Your task to perform on an android device: change notifications settings Image 0: 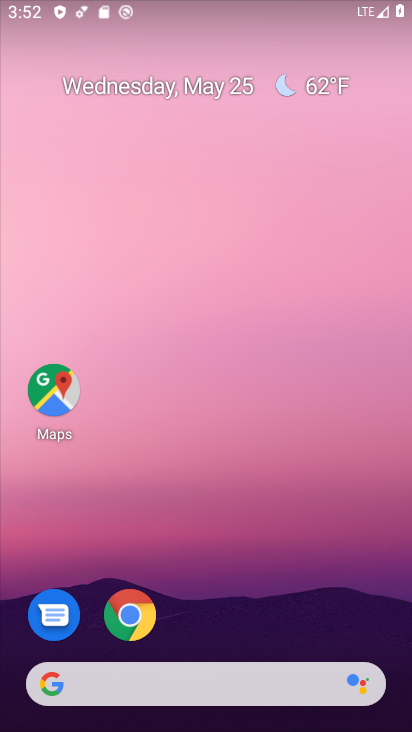
Step 0: drag from (346, 459) to (226, 2)
Your task to perform on an android device: change notifications settings Image 1: 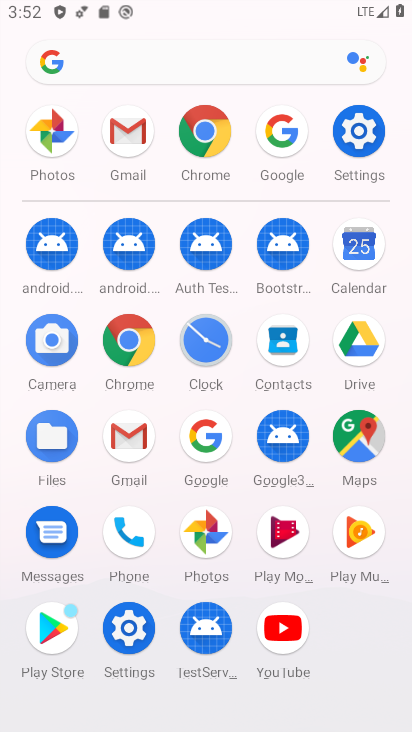
Step 1: click (357, 143)
Your task to perform on an android device: change notifications settings Image 2: 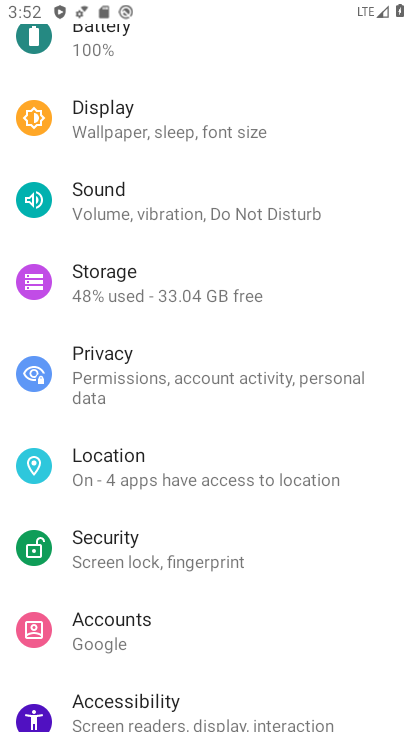
Step 2: drag from (226, 552) to (230, 202)
Your task to perform on an android device: change notifications settings Image 3: 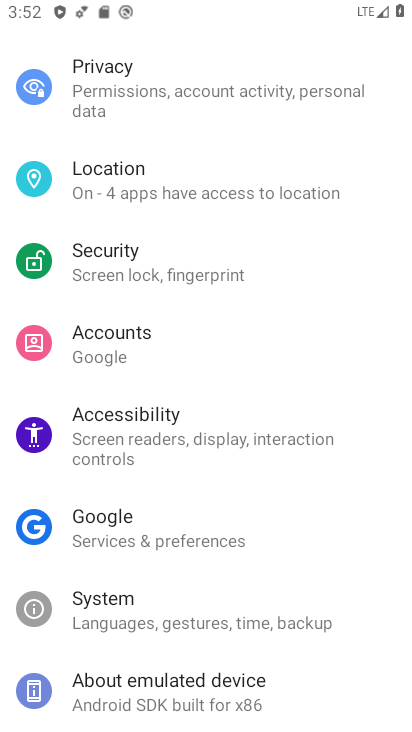
Step 3: drag from (256, 199) to (243, 723)
Your task to perform on an android device: change notifications settings Image 4: 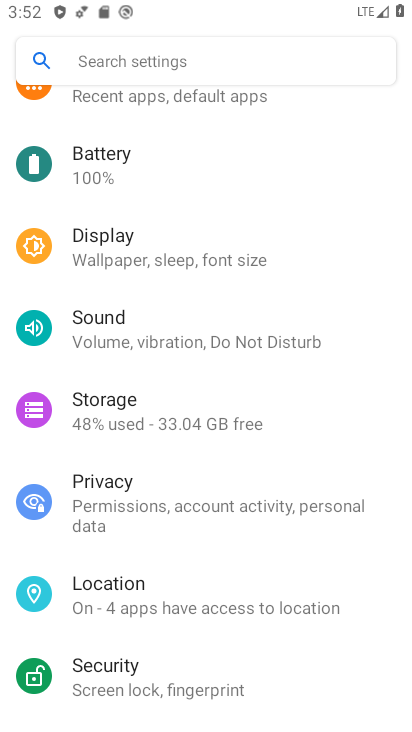
Step 4: click (203, 102)
Your task to perform on an android device: change notifications settings Image 5: 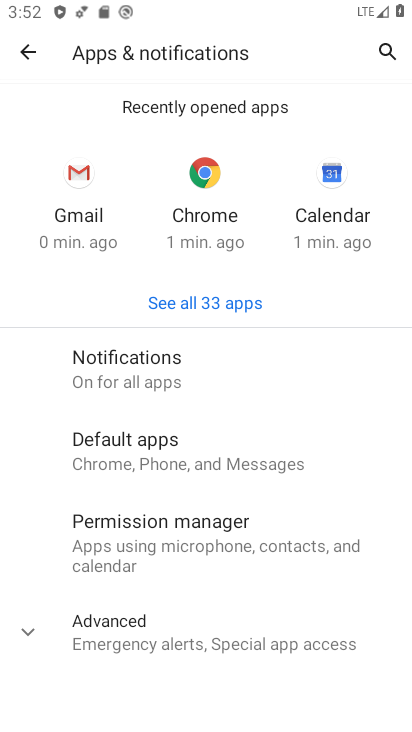
Step 5: click (183, 373)
Your task to perform on an android device: change notifications settings Image 6: 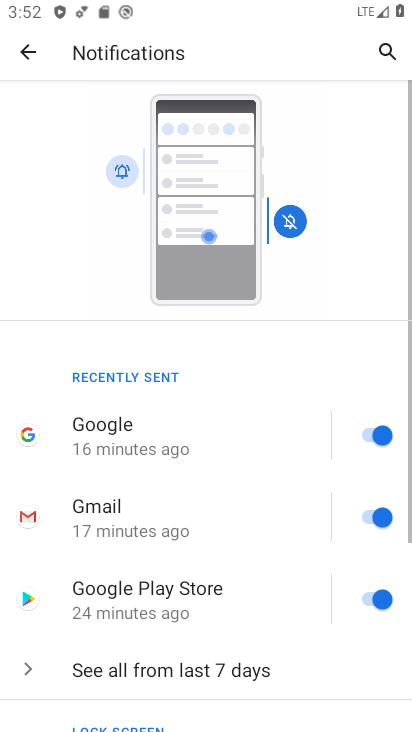
Step 6: click (379, 433)
Your task to perform on an android device: change notifications settings Image 7: 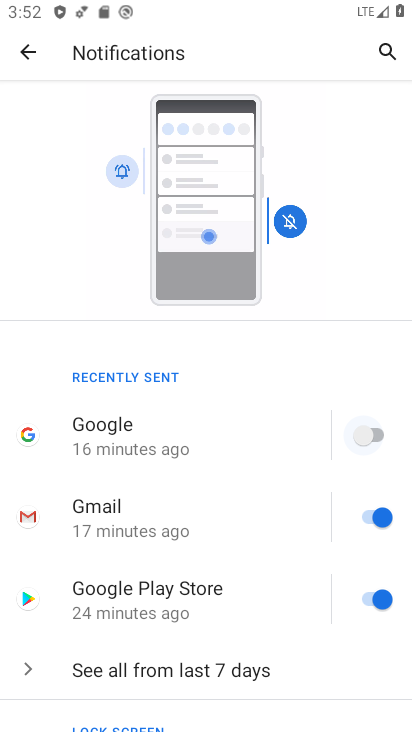
Step 7: click (374, 517)
Your task to perform on an android device: change notifications settings Image 8: 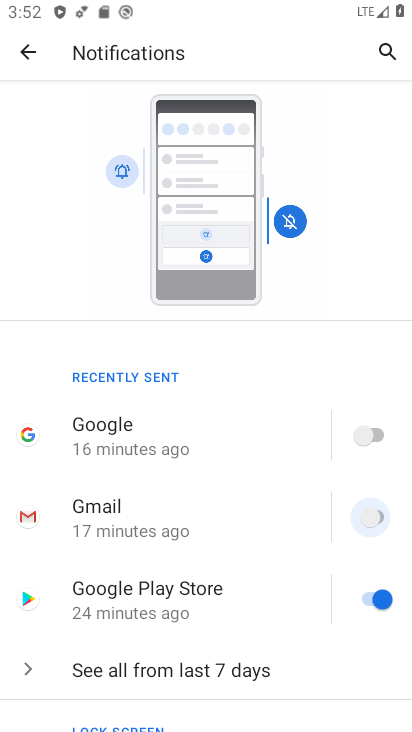
Step 8: click (378, 600)
Your task to perform on an android device: change notifications settings Image 9: 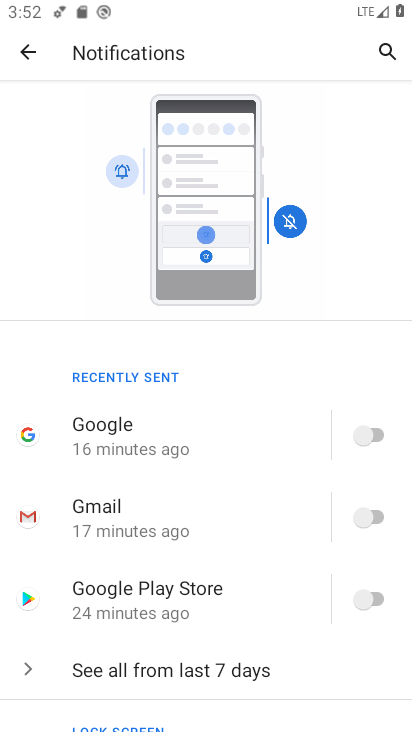
Step 9: task complete